Your task to perform on an android device: turn on improve location accuracy Image 0: 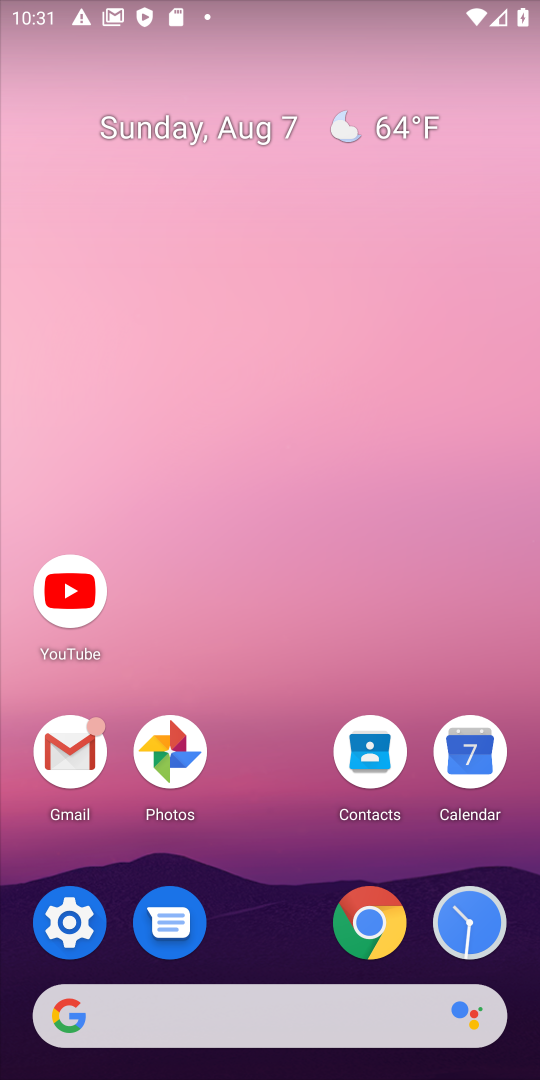
Step 0: click (72, 918)
Your task to perform on an android device: turn on improve location accuracy Image 1: 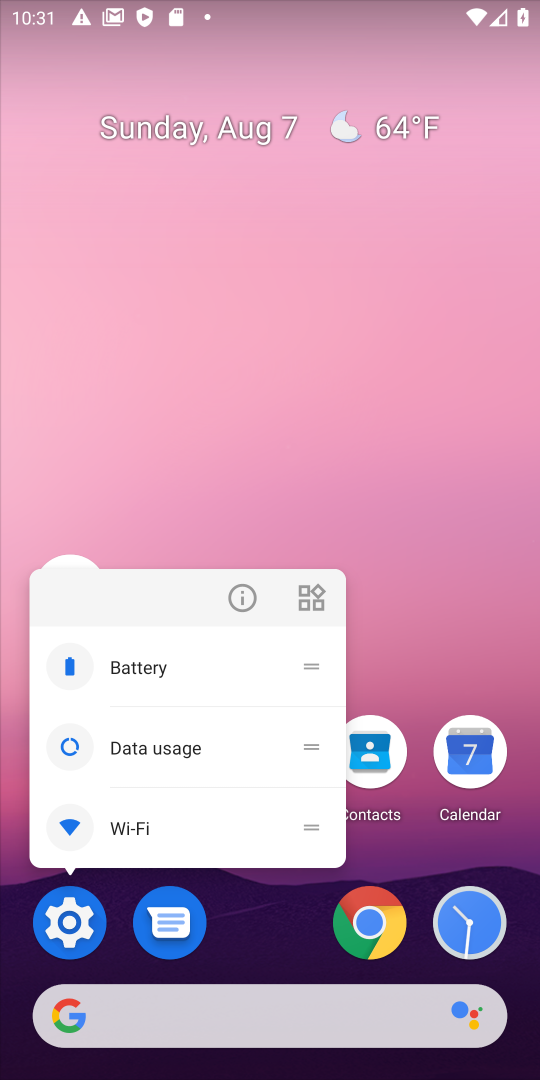
Step 1: click (72, 918)
Your task to perform on an android device: turn on improve location accuracy Image 2: 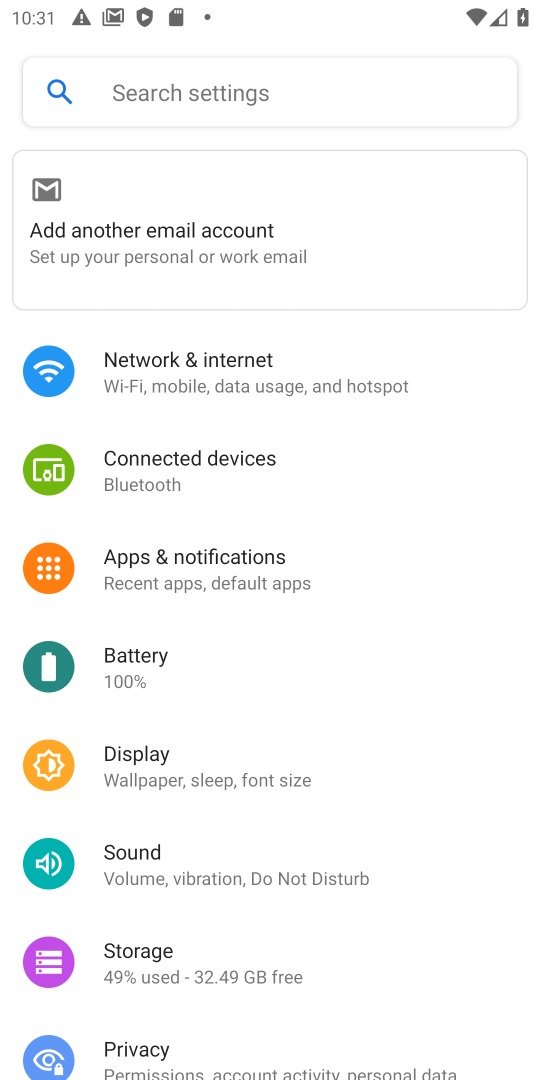
Step 2: drag from (304, 924) to (284, 521)
Your task to perform on an android device: turn on improve location accuracy Image 3: 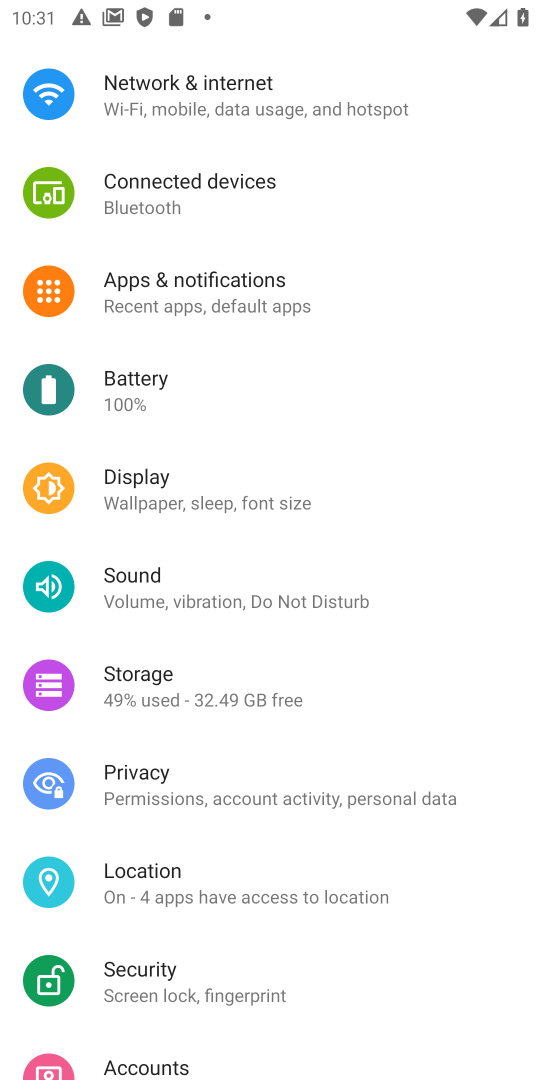
Step 3: click (129, 873)
Your task to perform on an android device: turn on improve location accuracy Image 4: 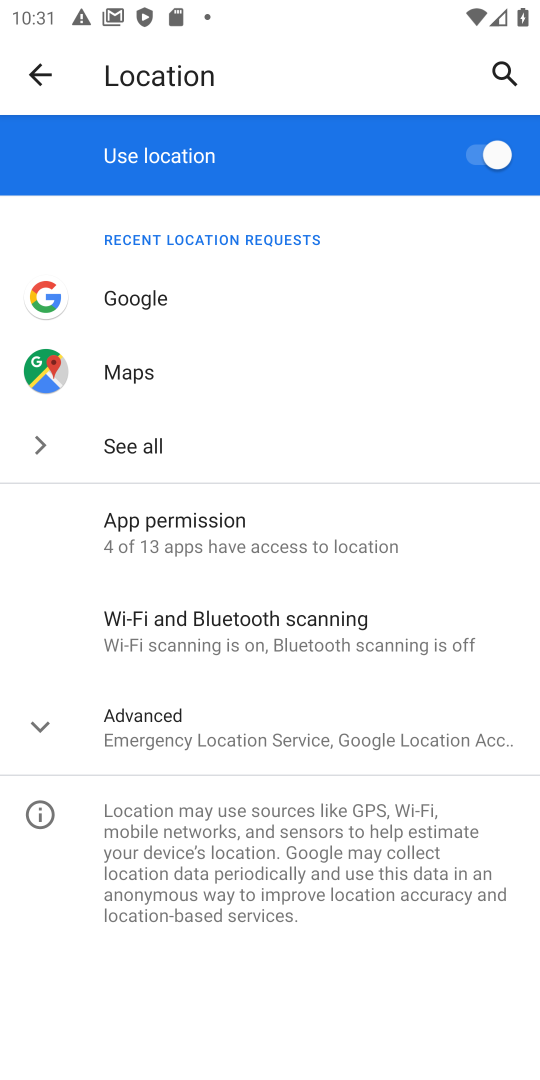
Step 4: click (43, 720)
Your task to perform on an android device: turn on improve location accuracy Image 5: 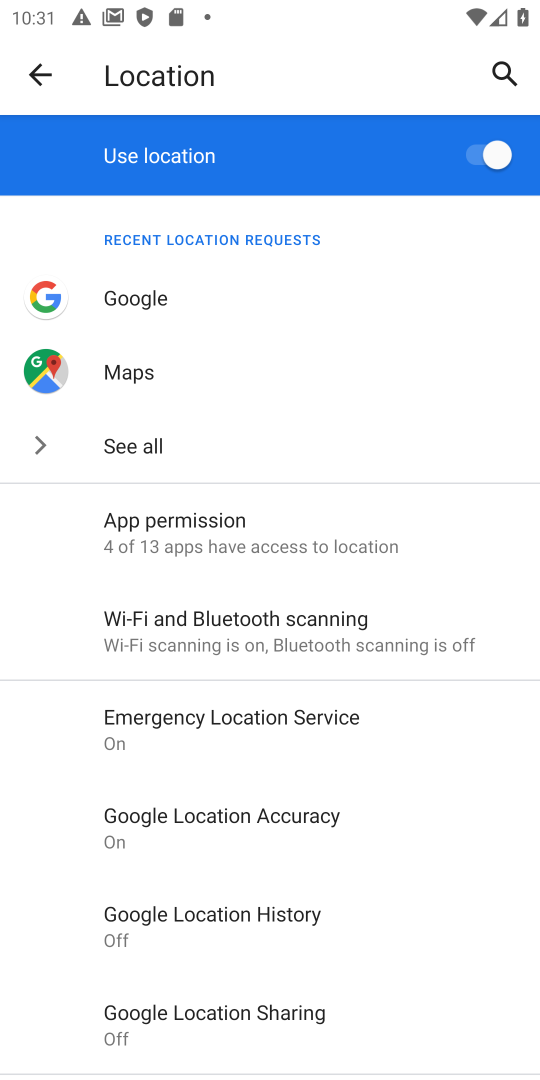
Step 5: click (227, 810)
Your task to perform on an android device: turn on improve location accuracy Image 6: 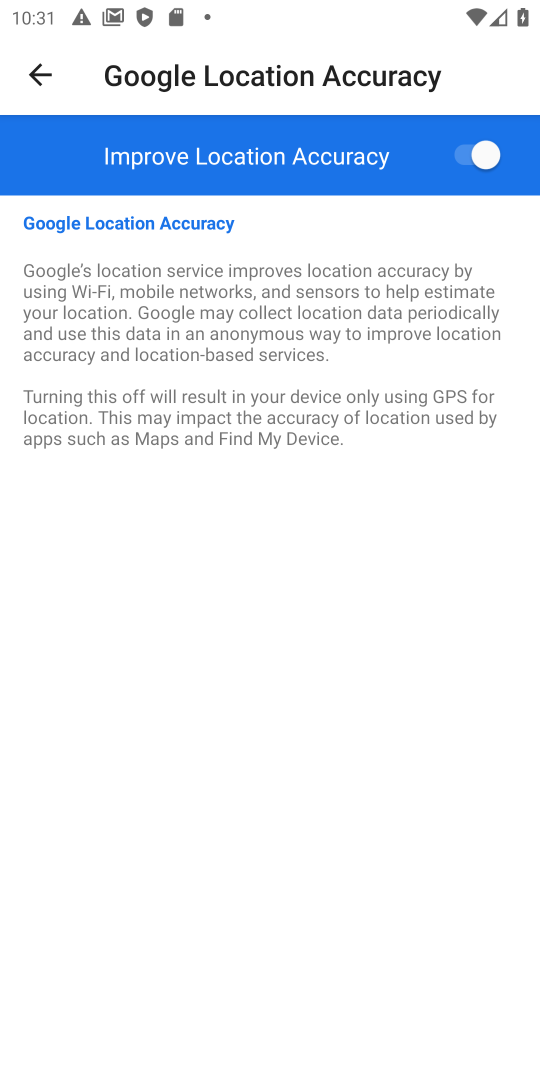
Step 6: task complete